Your task to perform on an android device: Search for vegetarian restaurants on Maps Image 0: 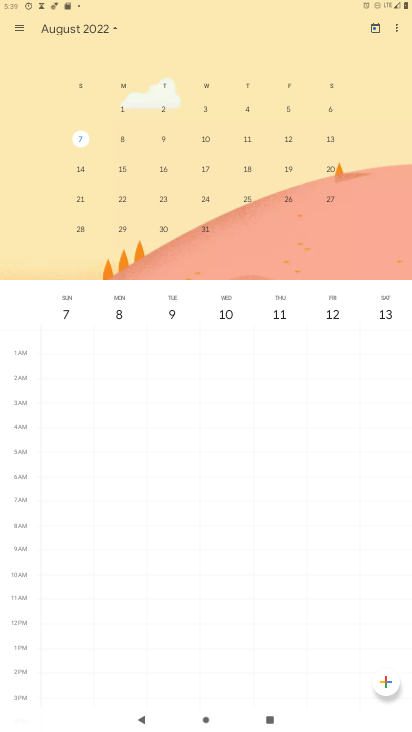
Step 0: press home button
Your task to perform on an android device: Search for vegetarian restaurants on Maps Image 1: 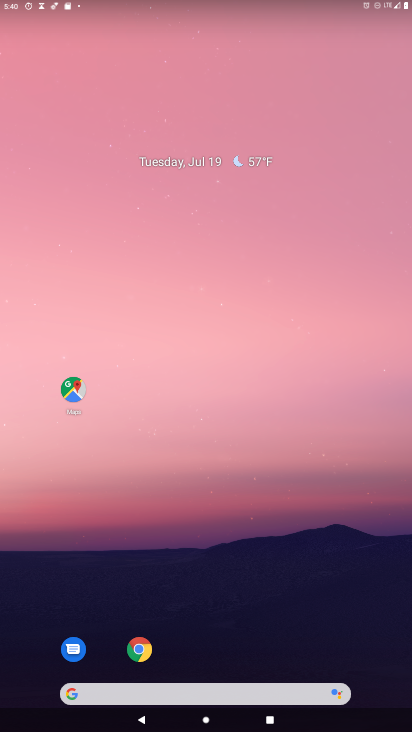
Step 1: click (75, 387)
Your task to perform on an android device: Search for vegetarian restaurants on Maps Image 2: 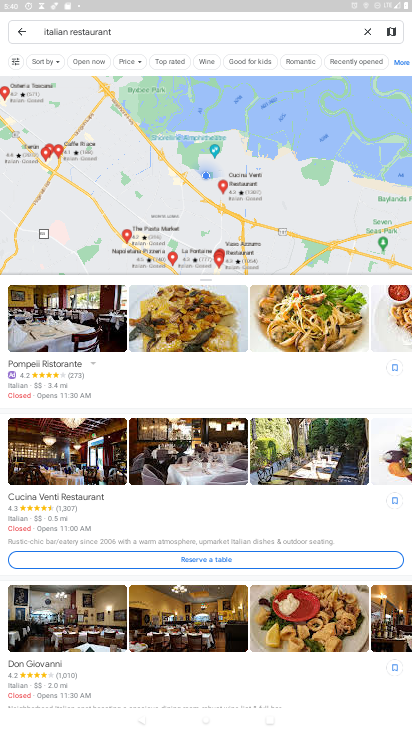
Step 2: click (21, 27)
Your task to perform on an android device: Search for vegetarian restaurants on Maps Image 3: 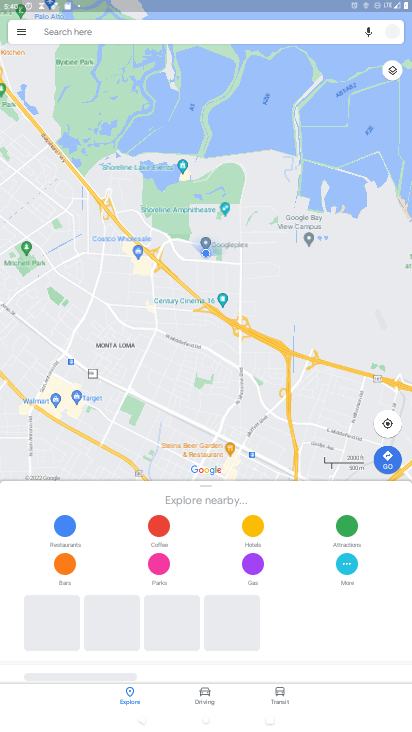
Step 3: click (219, 28)
Your task to perform on an android device: Search for vegetarian restaurants on Maps Image 4: 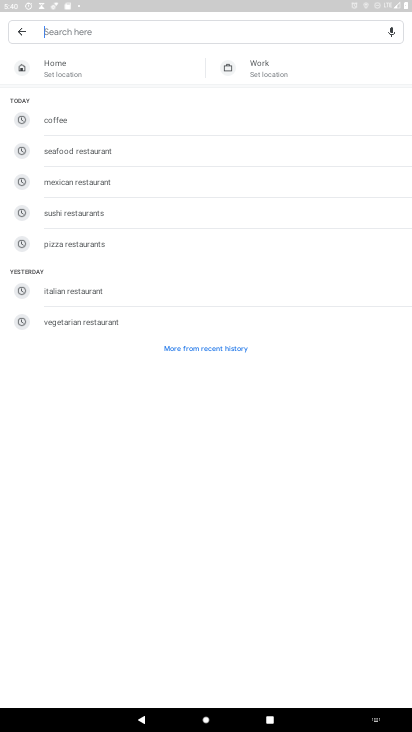
Step 4: click (78, 324)
Your task to perform on an android device: Search for vegetarian restaurants on Maps Image 5: 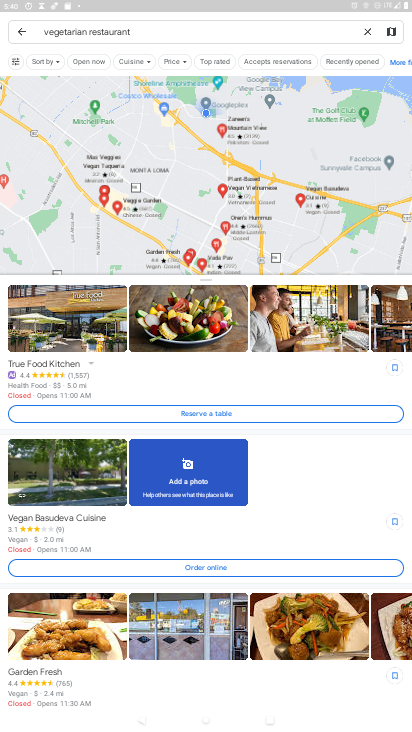
Step 5: task complete